Your task to perform on an android device: snooze an email in the gmail app Image 0: 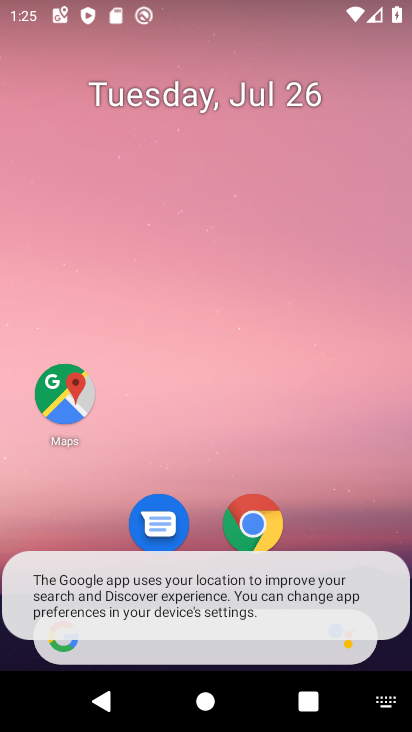
Step 0: press home button
Your task to perform on an android device: snooze an email in the gmail app Image 1: 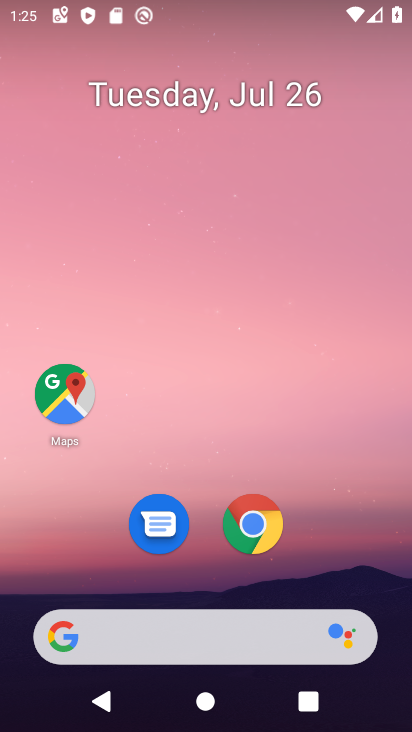
Step 1: drag from (224, 632) to (347, 112)
Your task to perform on an android device: snooze an email in the gmail app Image 2: 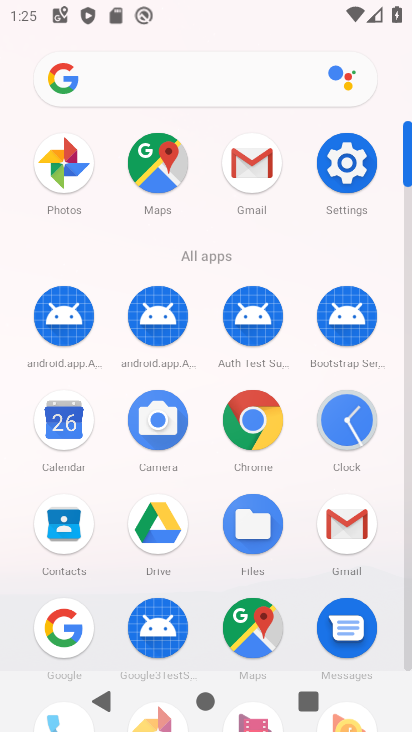
Step 2: click (252, 179)
Your task to perform on an android device: snooze an email in the gmail app Image 3: 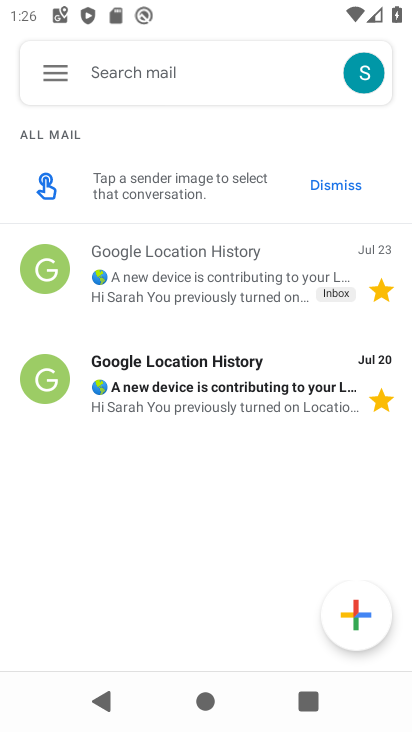
Step 3: click (46, 261)
Your task to perform on an android device: snooze an email in the gmail app Image 4: 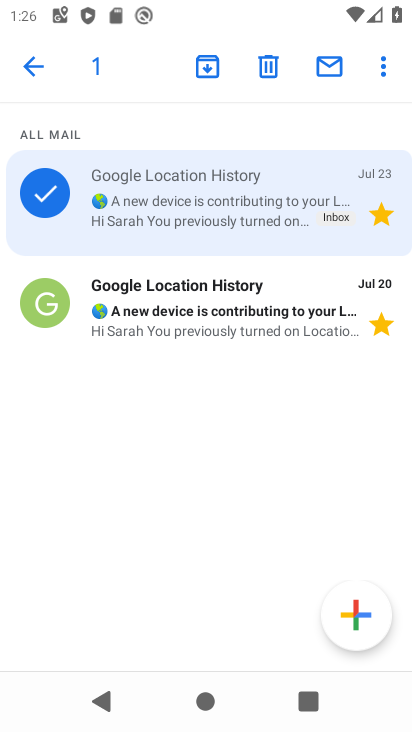
Step 4: click (380, 65)
Your task to perform on an android device: snooze an email in the gmail app Image 5: 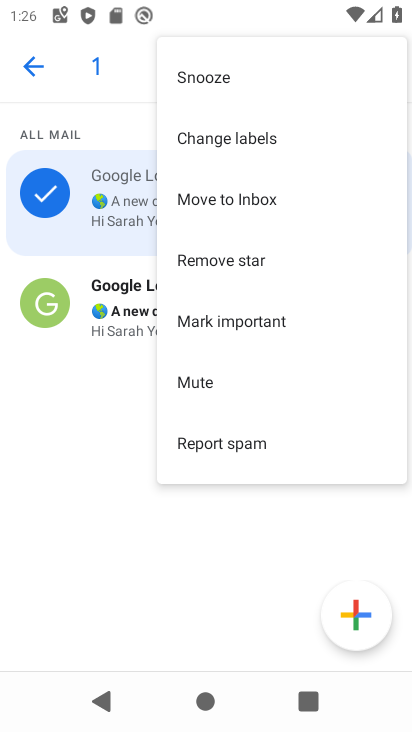
Step 5: click (215, 73)
Your task to perform on an android device: snooze an email in the gmail app Image 6: 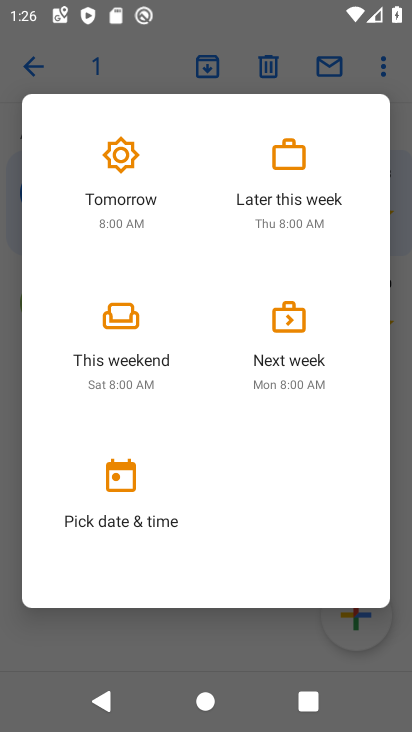
Step 6: click (140, 219)
Your task to perform on an android device: snooze an email in the gmail app Image 7: 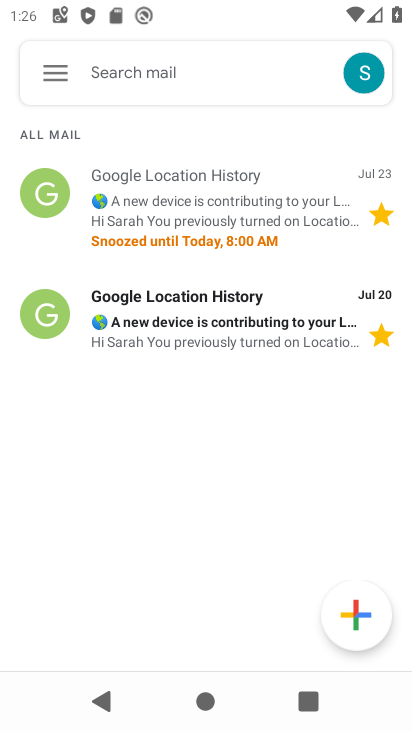
Step 7: task complete